Your task to perform on an android device: find which apps use the phone's location Image 0: 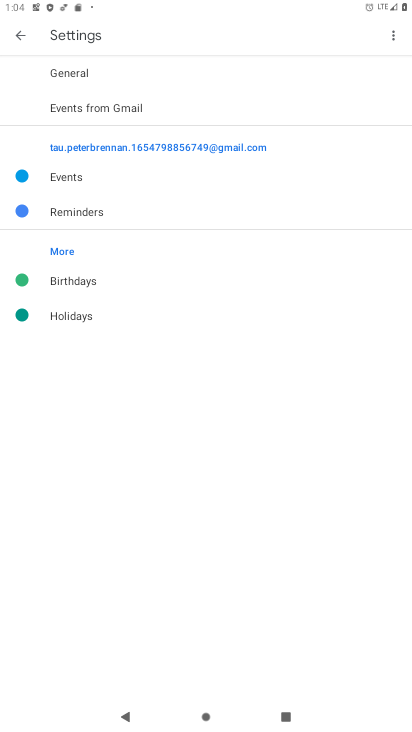
Step 0: press home button
Your task to perform on an android device: find which apps use the phone's location Image 1: 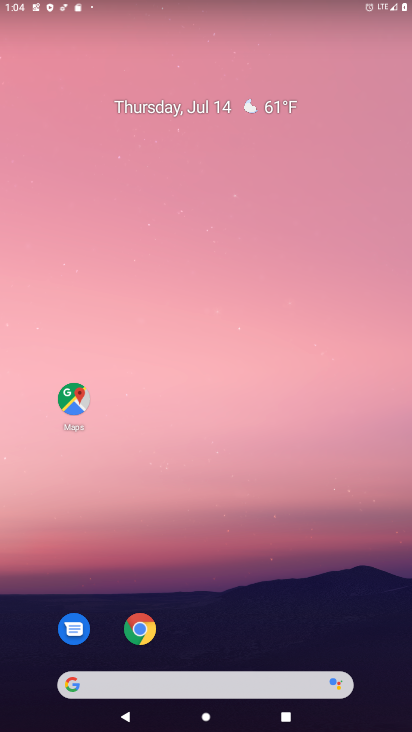
Step 1: drag from (247, 549) to (175, 192)
Your task to perform on an android device: find which apps use the phone's location Image 2: 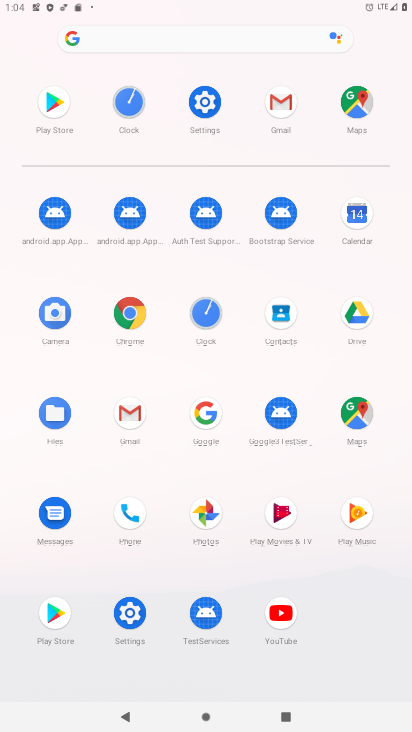
Step 2: click (209, 102)
Your task to perform on an android device: find which apps use the phone's location Image 3: 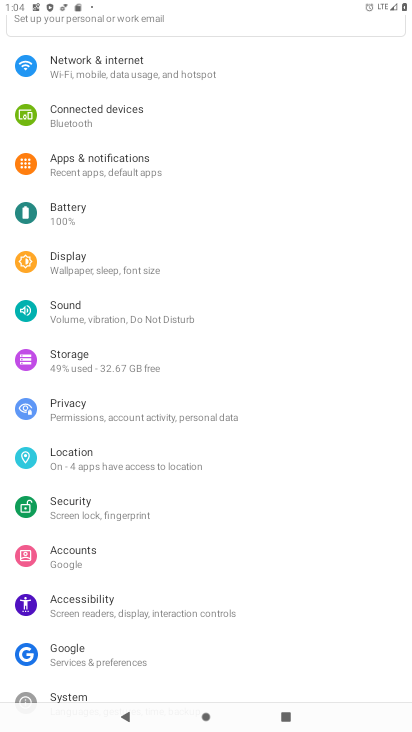
Step 3: click (71, 454)
Your task to perform on an android device: find which apps use the phone's location Image 4: 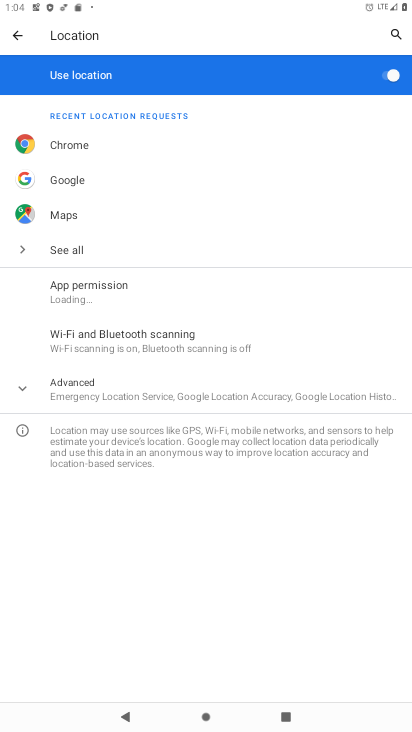
Step 4: click (60, 247)
Your task to perform on an android device: find which apps use the phone's location Image 5: 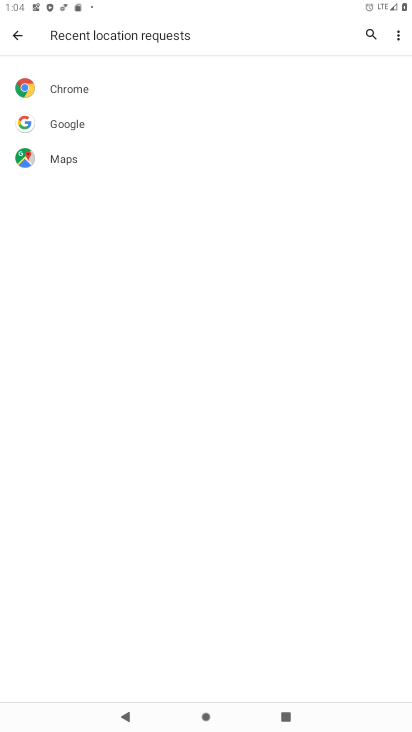
Step 5: task complete